Your task to perform on an android device: open app "Facebook" (install if not already installed) and go to login screen Image 0: 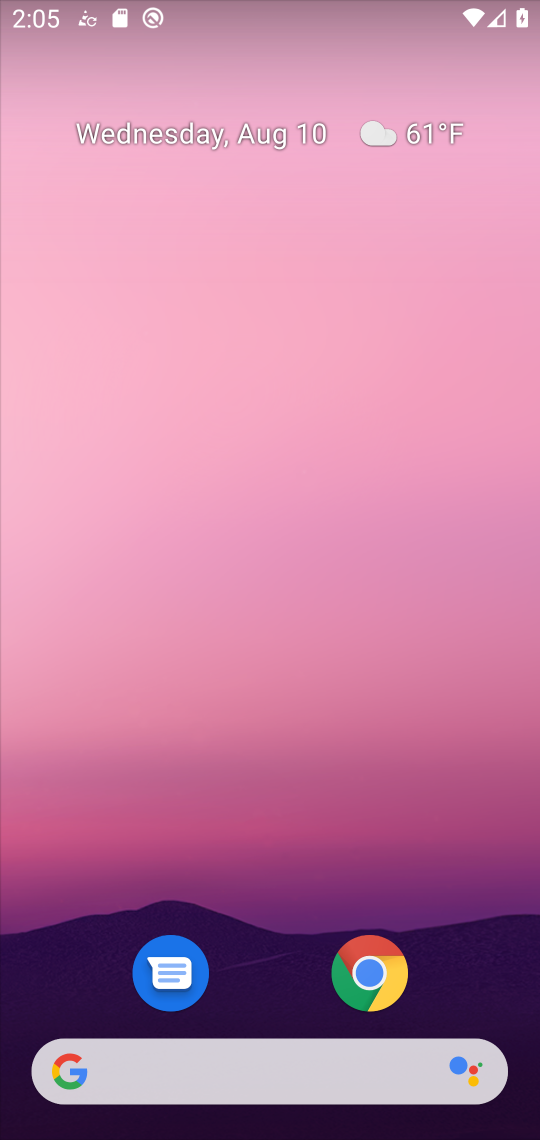
Step 0: drag from (163, 768) to (197, 617)
Your task to perform on an android device: open app "Facebook" (install if not already installed) and go to login screen Image 1: 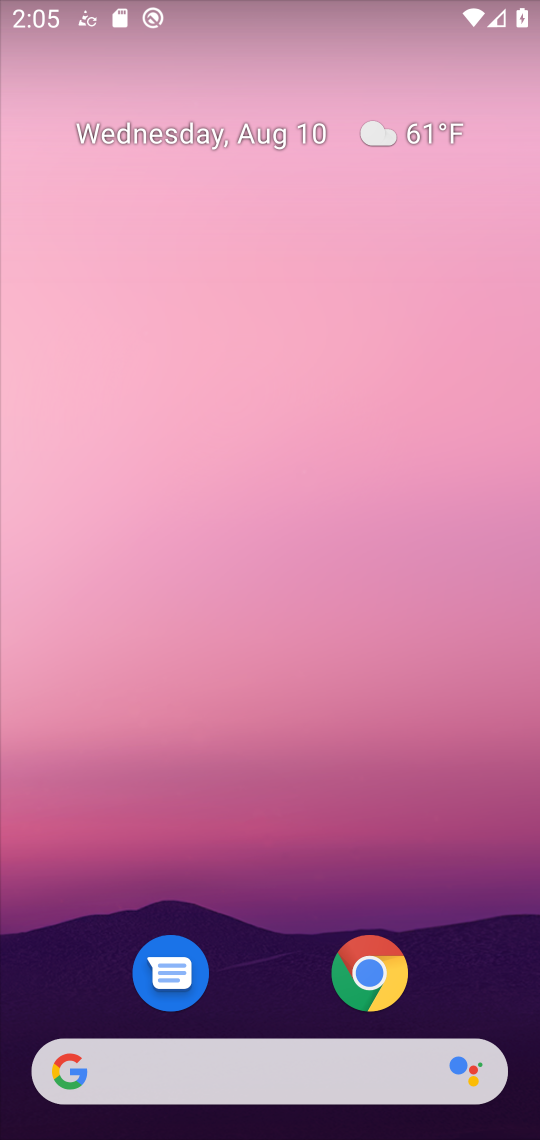
Step 1: drag from (282, 531) to (282, 160)
Your task to perform on an android device: open app "Facebook" (install if not already installed) and go to login screen Image 2: 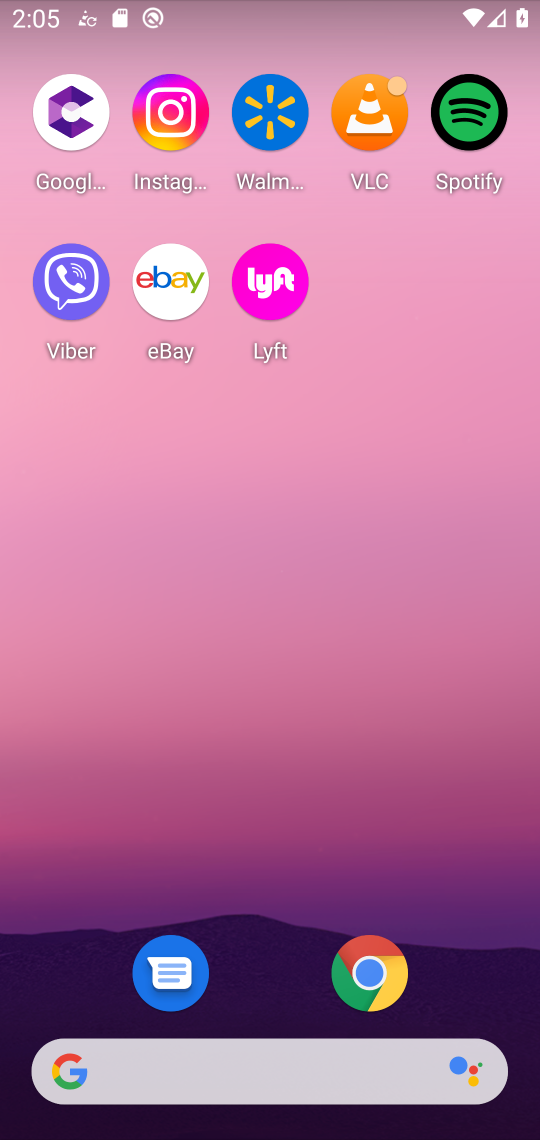
Step 2: drag from (248, 958) to (274, 630)
Your task to perform on an android device: open app "Facebook" (install if not already installed) and go to login screen Image 3: 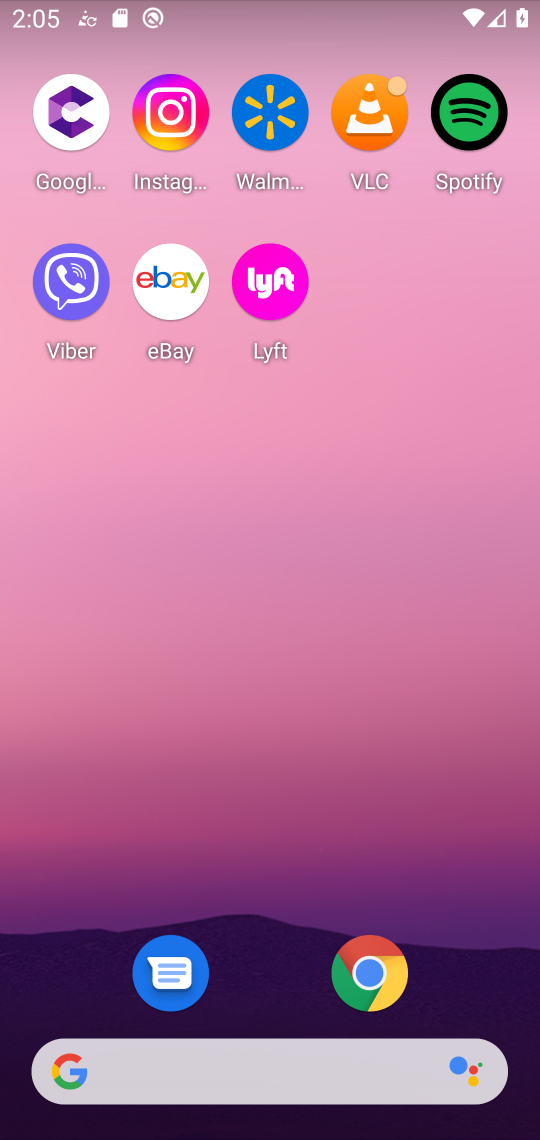
Step 3: drag from (268, 1033) to (271, 564)
Your task to perform on an android device: open app "Facebook" (install if not already installed) and go to login screen Image 4: 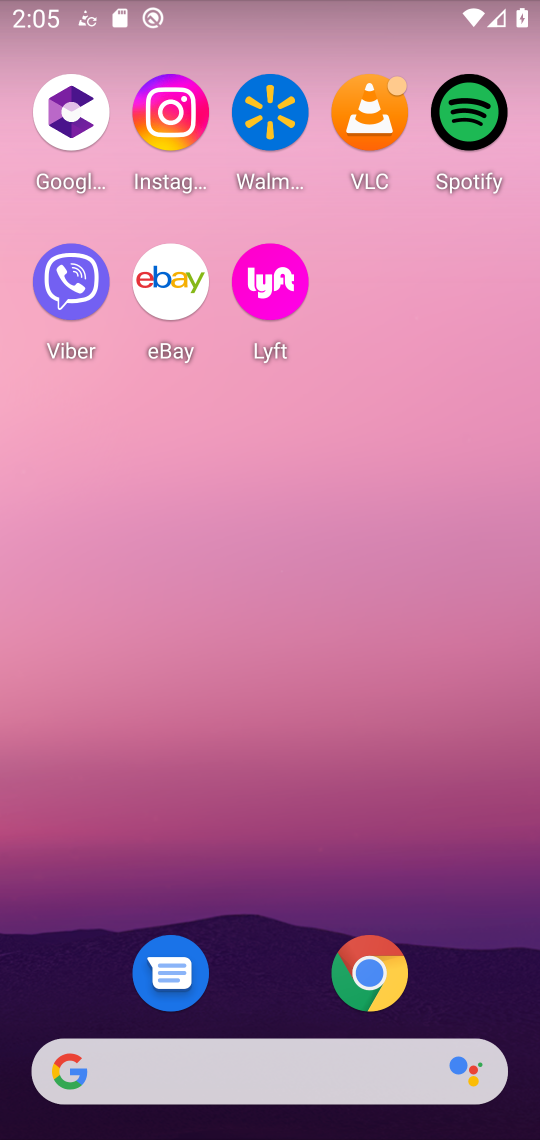
Step 4: drag from (269, 1017) to (267, 353)
Your task to perform on an android device: open app "Facebook" (install if not already installed) and go to login screen Image 5: 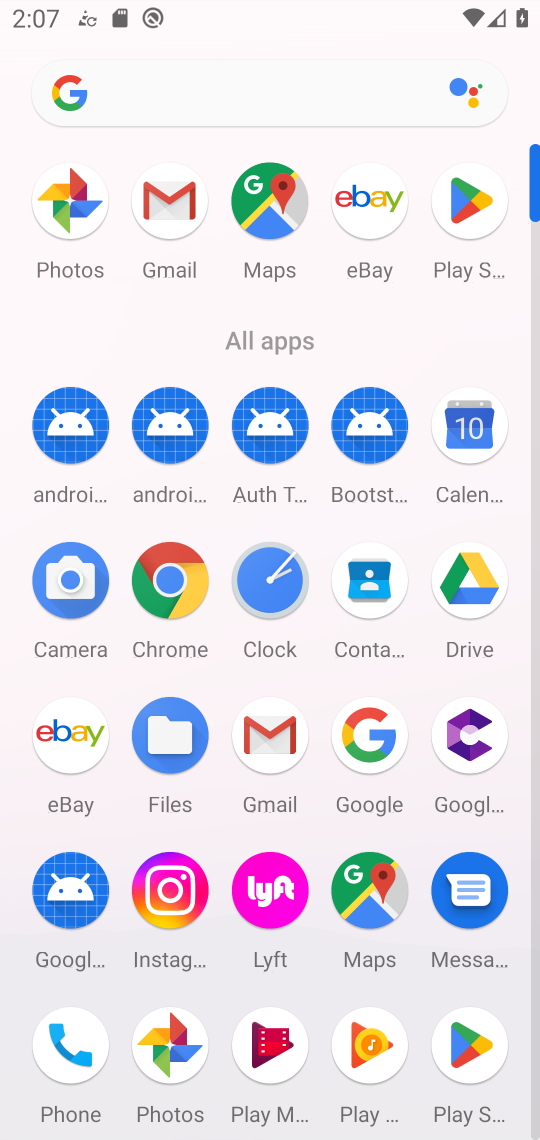
Step 5: click (479, 194)
Your task to perform on an android device: open app "Facebook" (install if not already installed) and go to login screen Image 6: 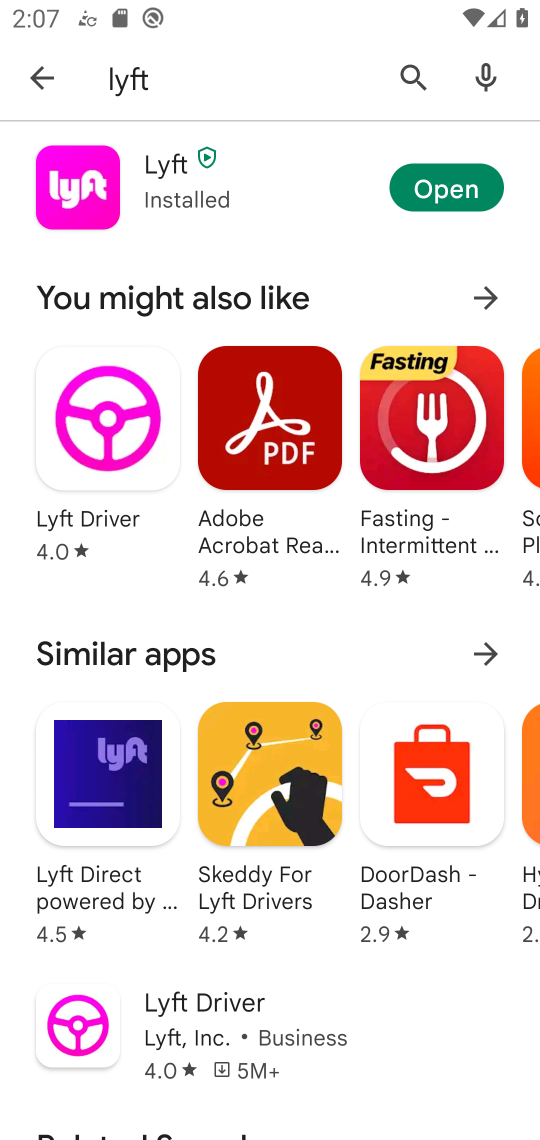
Step 6: click (46, 77)
Your task to perform on an android device: open app "Facebook" (install if not already installed) and go to login screen Image 7: 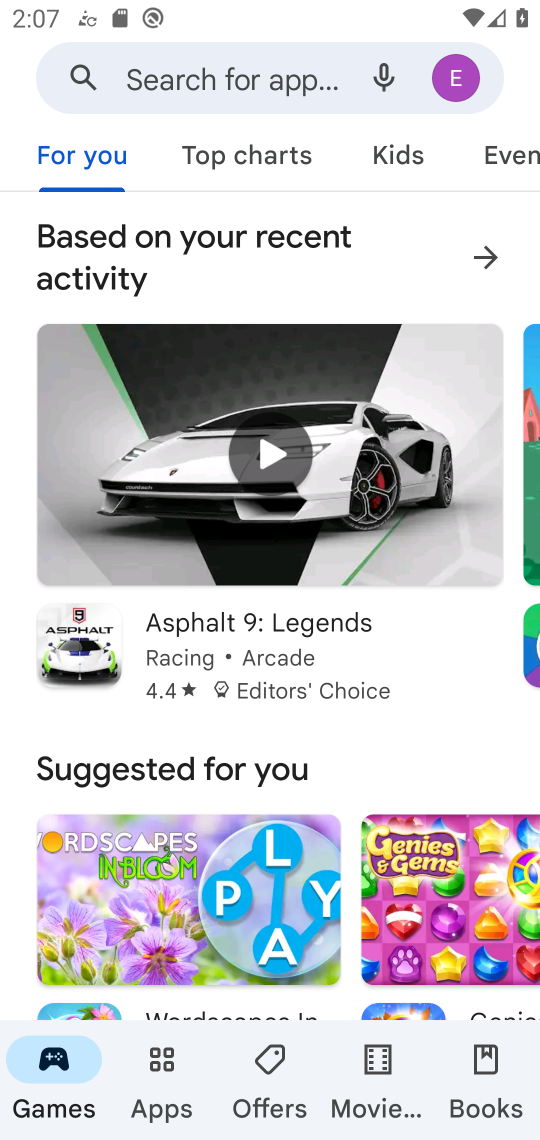
Step 7: click (245, 70)
Your task to perform on an android device: open app "Facebook" (install if not already installed) and go to login screen Image 8: 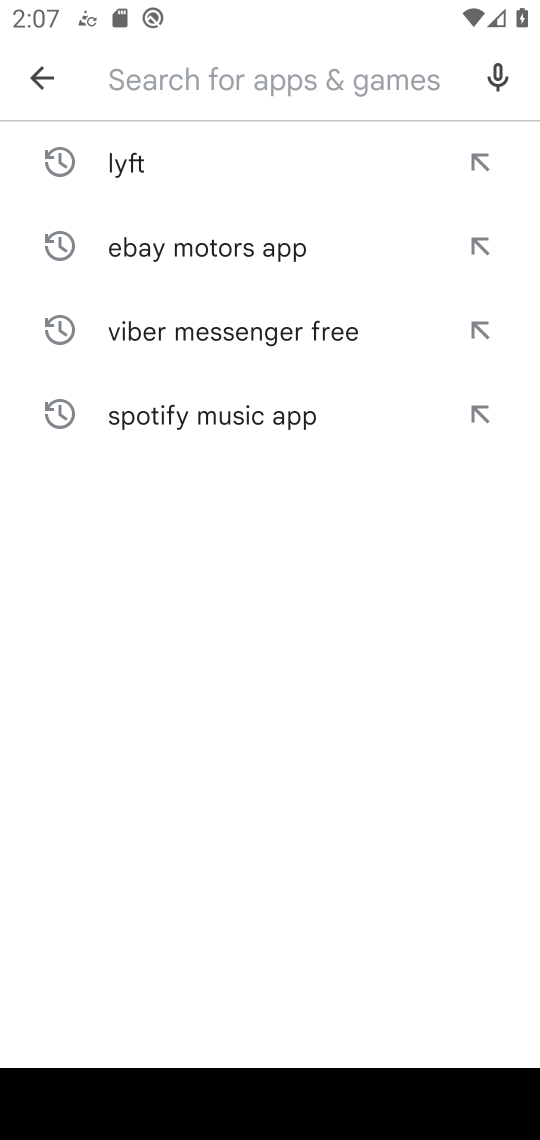
Step 8: type "facebook "
Your task to perform on an android device: open app "Facebook" (install if not already installed) and go to login screen Image 9: 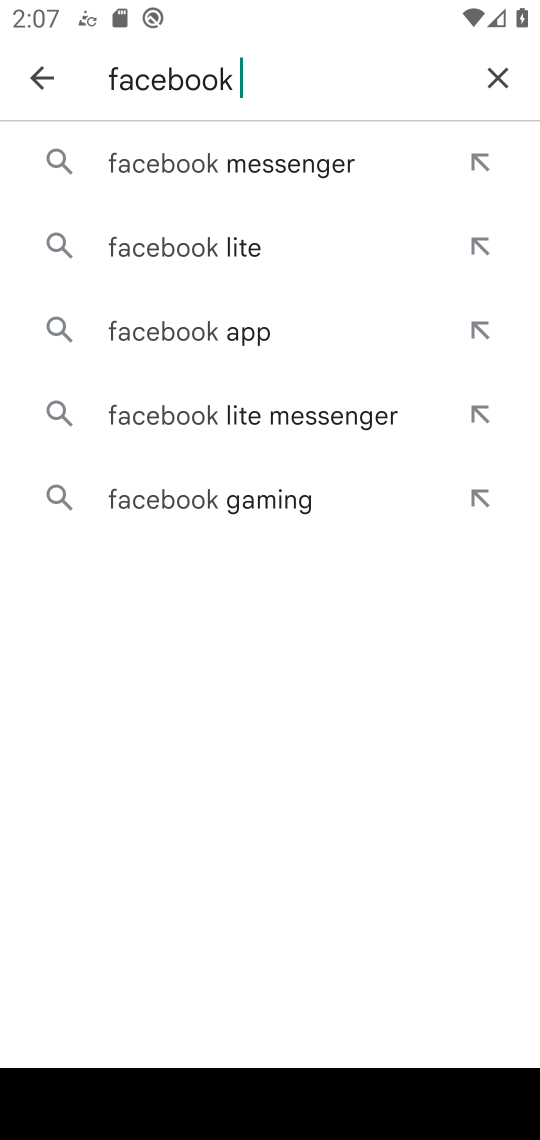
Step 9: click (153, 343)
Your task to perform on an android device: open app "Facebook" (install if not already installed) and go to login screen Image 10: 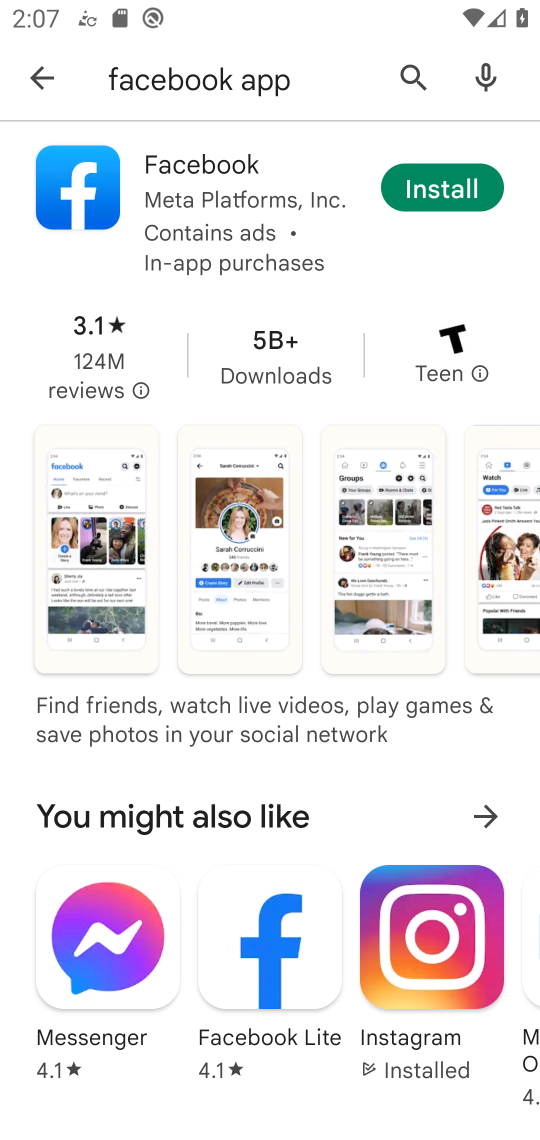
Step 10: click (430, 178)
Your task to perform on an android device: open app "Facebook" (install if not already installed) and go to login screen Image 11: 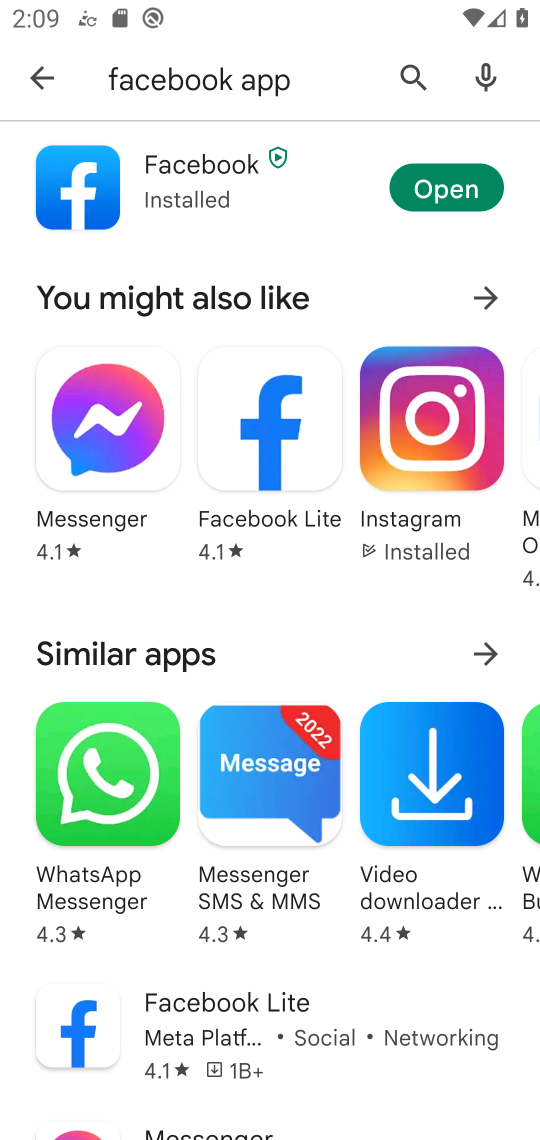
Step 11: click (427, 184)
Your task to perform on an android device: open app "Facebook" (install if not already installed) and go to login screen Image 12: 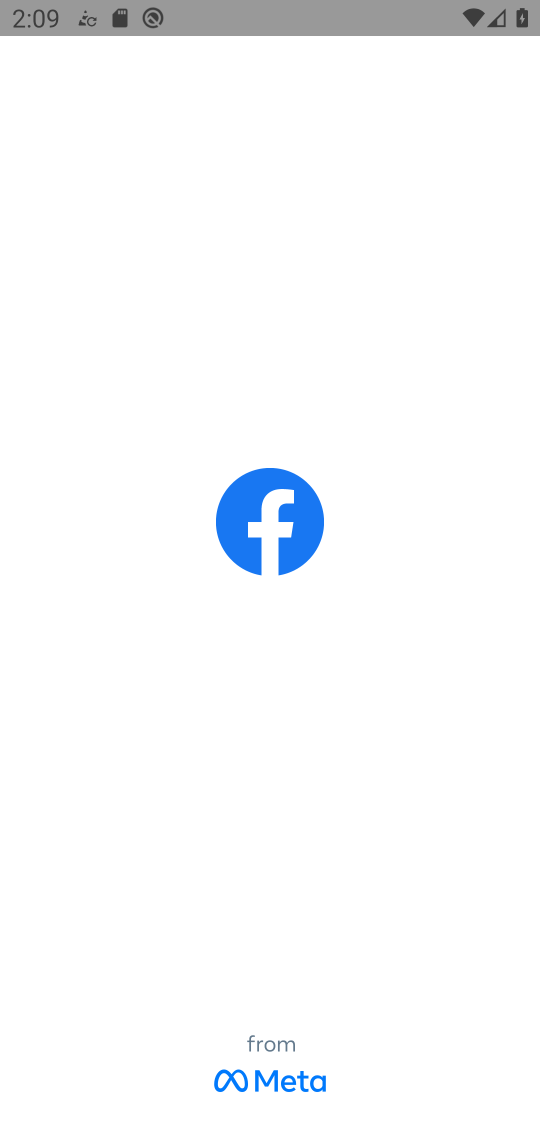
Step 12: task complete